Your task to perform on an android device: Open location settings Image 0: 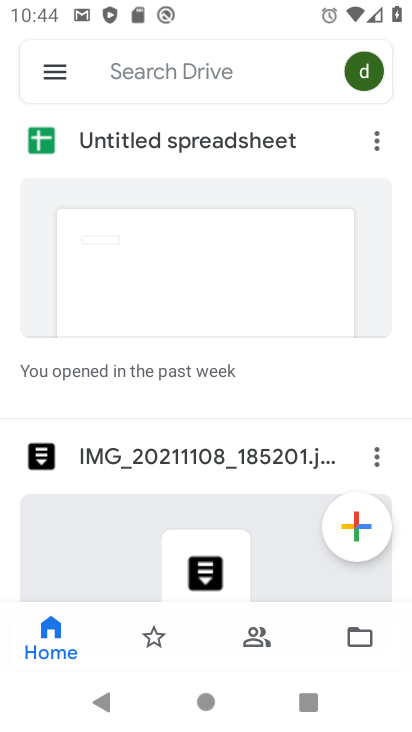
Step 0: press home button
Your task to perform on an android device: Open location settings Image 1: 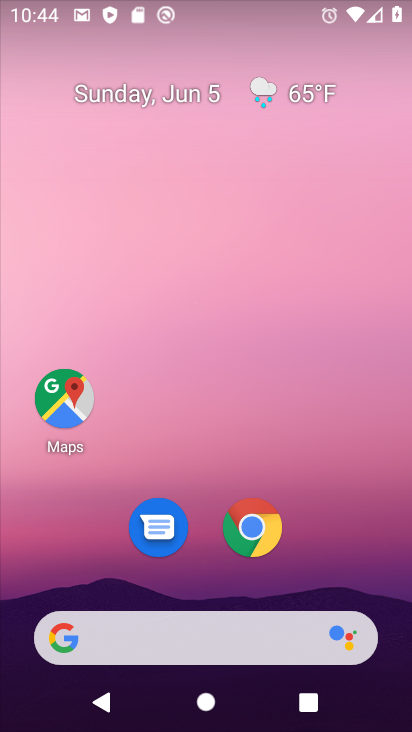
Step 1: drag from (71, 500) to (285, 92)
Your task to perform on an android device: Open location settings Image 2: 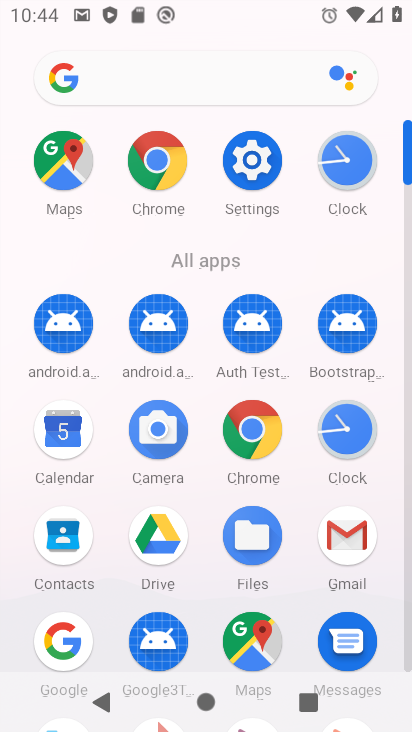
Step 2: click (258, 155)
Your task to perform on an android device: Open location settings Image 3: 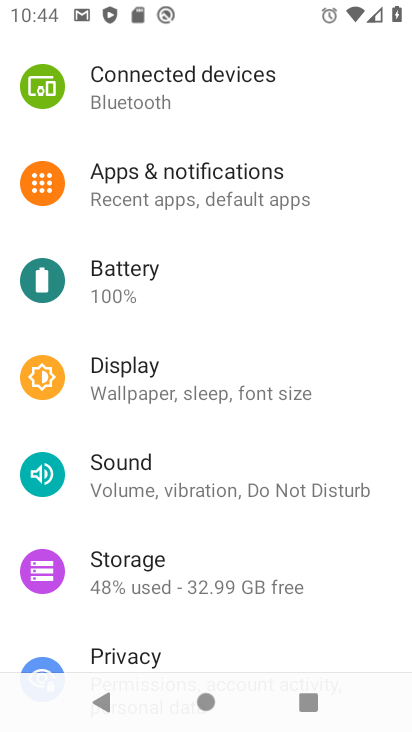
Step 3: drag from (45, 449) to (223, 161)
Your task to perform on an android device: Open location settings Image 4: 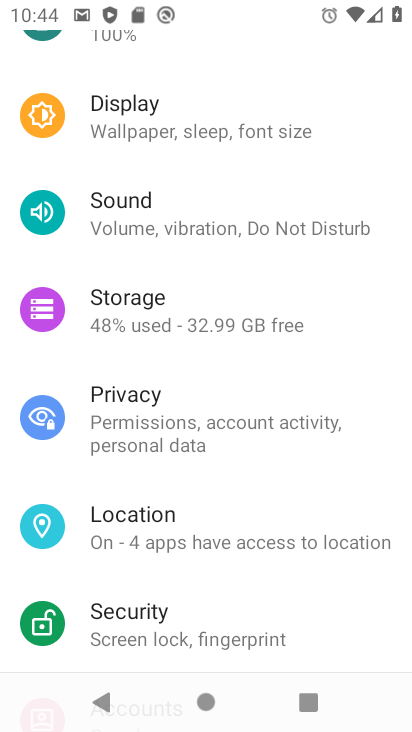
Step 4: click (149, 527)
Your task to perform on an android device: Open location settings Image 5: 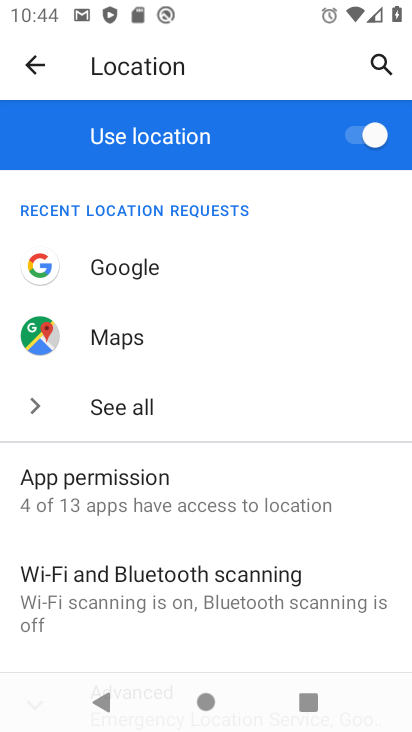
Step 5: task complete